Your task to perform on an android device: Turn off the flashlight Image 0: 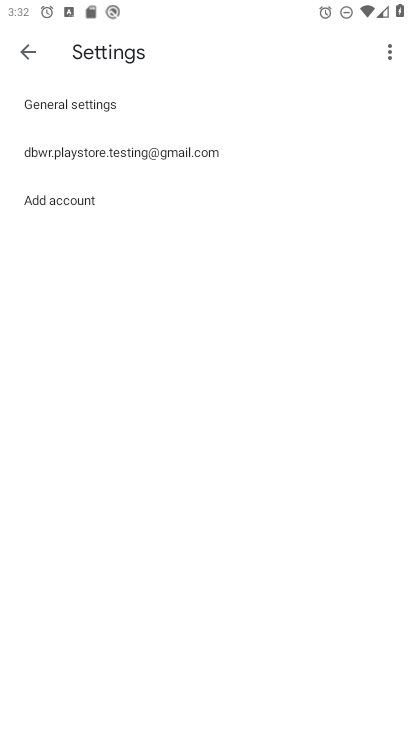
Step 0: press home button
Your task to perform on an android device: Turn off the flashlight Image 1: 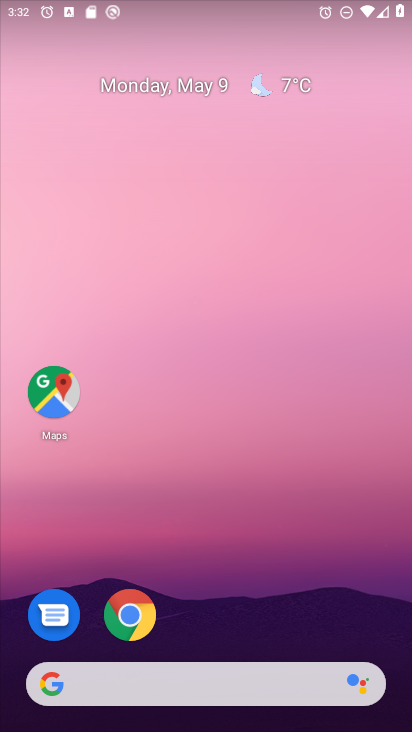
Step 1: drag from (226, 8) to (209, 510)
Your task to perform on an android device: Turn off the flashlight Image 2: 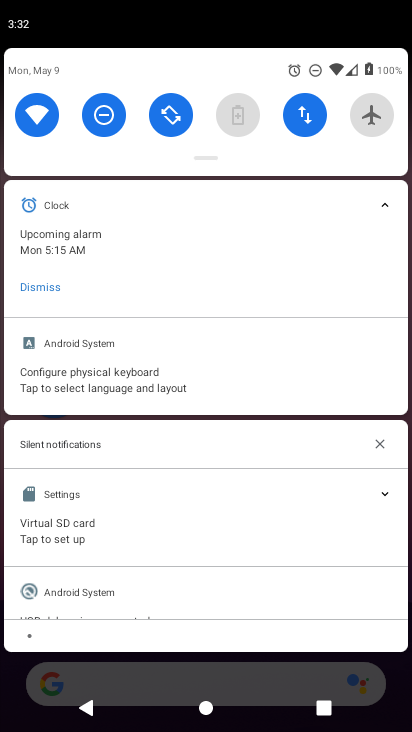
Step 2: drag from (204, 152) to (184, 413)
Your task to perform on an android device: Turn off the flashlight Image 3: 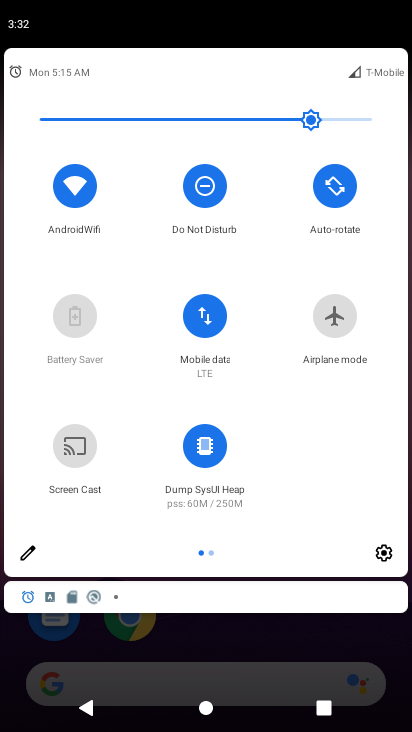
Step 3: click (23, 549)
Your task to perform on an android device: Turn off the flashlight Image 4: 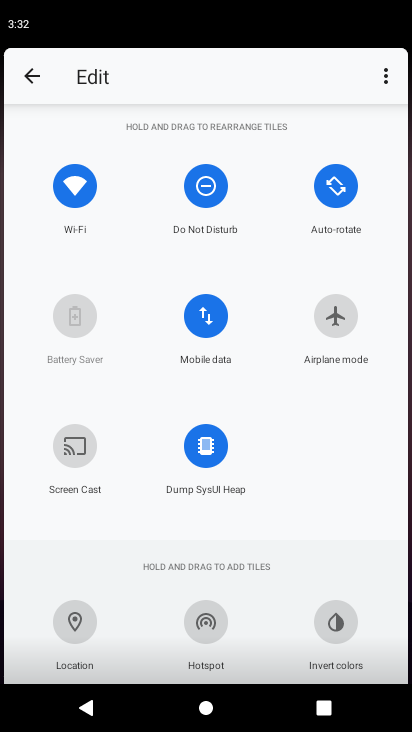
Step 4: task complete